Your task to perform on an android device: Clear the cart on costco.com. Add razer naga to the cart on costco.com, then select checkout. Image 0: 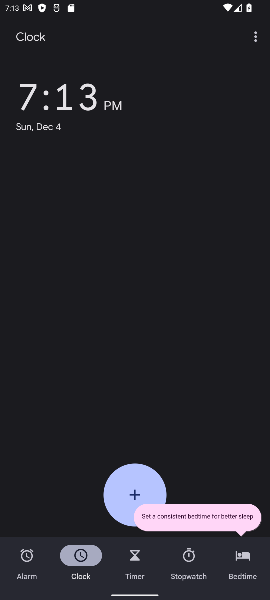
Step 0: press home button
Your task to perform on an android device: Clear the cart on costco.com. Add razer naga to the cart on costco.com, then select checkout. Image 1: 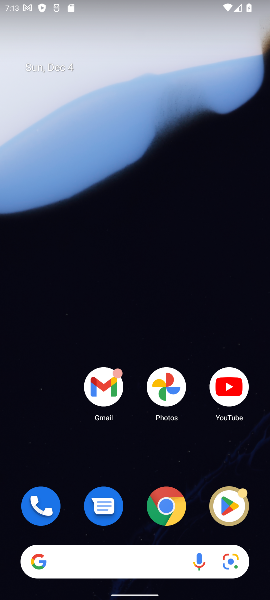
Step 1: click (167, 510)
Your task to perform on an android device: Clear the cart on costco.com. Add razer naga to the cart on costco.com, then select checkout. Image 2: 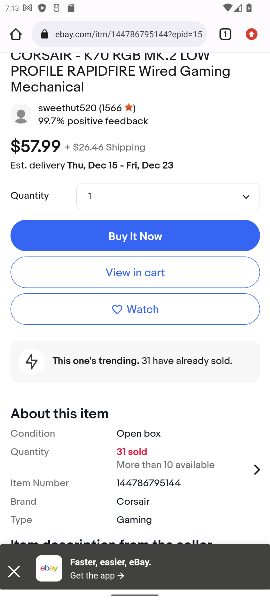
Step 2: click (152, 26)
Your task to perform on an android device: Clear the cart on costco.com. Add razer naga to the cart on costco.com, then select checkout. Image 3: 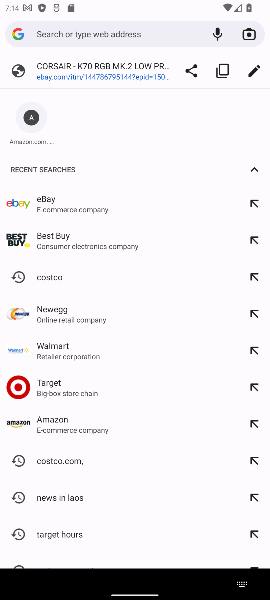
Step 3: click (46, 454)
Your task to perform on an android device: Clear the cart on costco.com. Add razer naga to the cart on costco.com, then select checkout. Image 4: 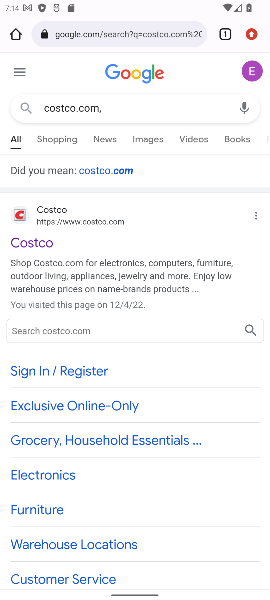
Step 4: click (20, 248)
Your task to perform on an android device: Clear the cart on costco.com. Add razer naga to the cart on costco.com, then select checkout. Image 5: 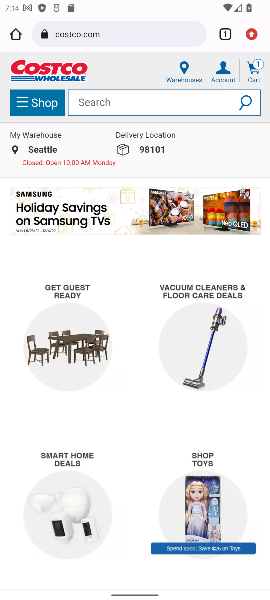
Step 5: click (254, 63)
Your task to perform on an android device: Clear the cart on costco.com. Add razer naga to the cart on costco.com, then select checkout. Image 6: 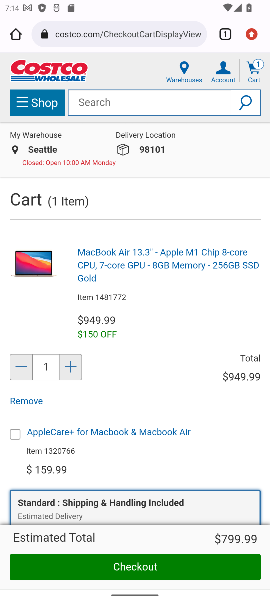
Step 6: click (26, 398)
Your task to perform on an android device: Clear the cart on costco.com. Add razer naga to the cart on costco.com, then select checkout. Image 7: 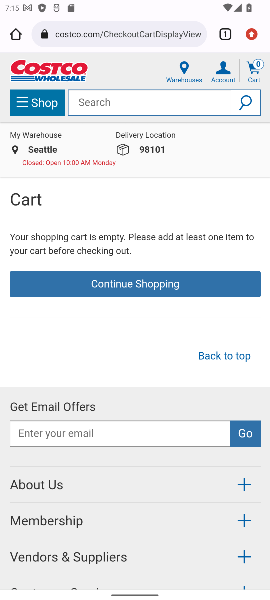
Step 7: click (132, 104)
Your task to perform on an android device: Clear the cart on costco.com. Add razer naga to the cart on costco.com, then select checkout. Image 8: 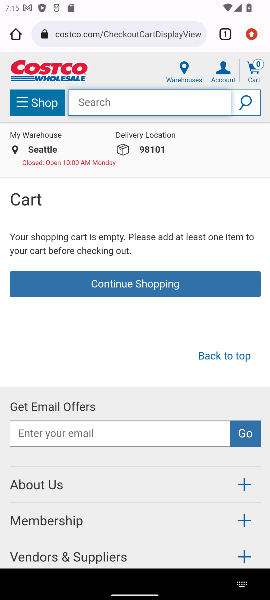
Step 8: type "razer naga"
Your task to perform on an android device: Clear the cart on costco.com. Add razer naga to the cart on costco.com, then select checkout. Image 9: 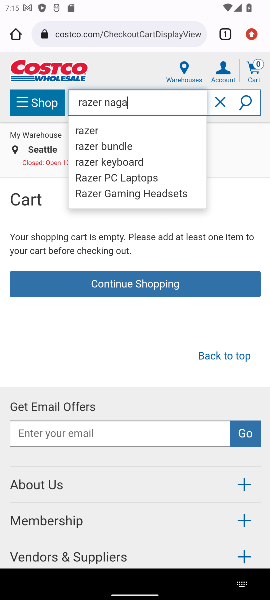
Step 9: click (250, 105)
Your task to perform on an android device: Clear the cart on costco.com. Add razer naga to the cart on costco.com, then select checkout. Image 10: 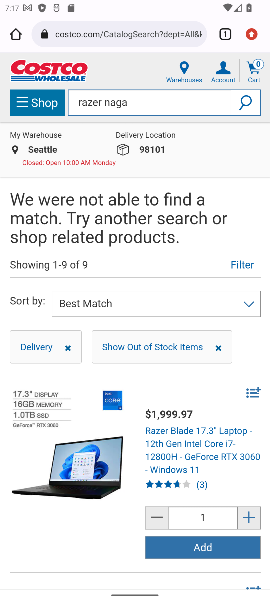
Step 10: task complete